Your task to perform on an android device: Find coffee shops on Maps Image 0: 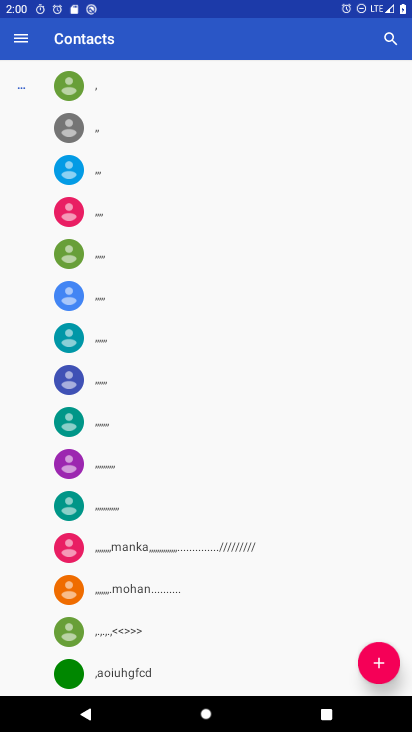
Step 0: press home button
Your task to perform on an android device: Find coffee shops on Maps Image 1: 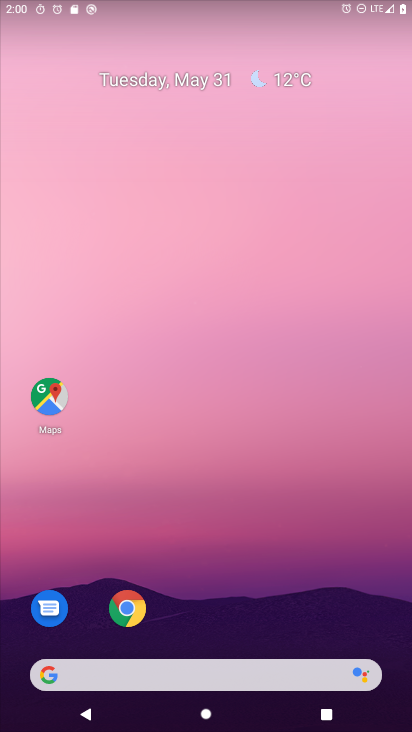
Step 1: click (48, 399)
Your task to perform on an android device: Find coffee shops on Maps Image 2: 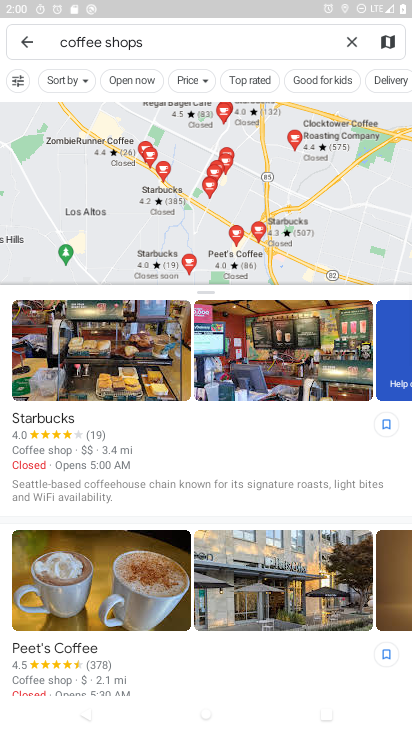
Step 2: task complete